Your task to perform on an android device: Open the web browser Image 0: 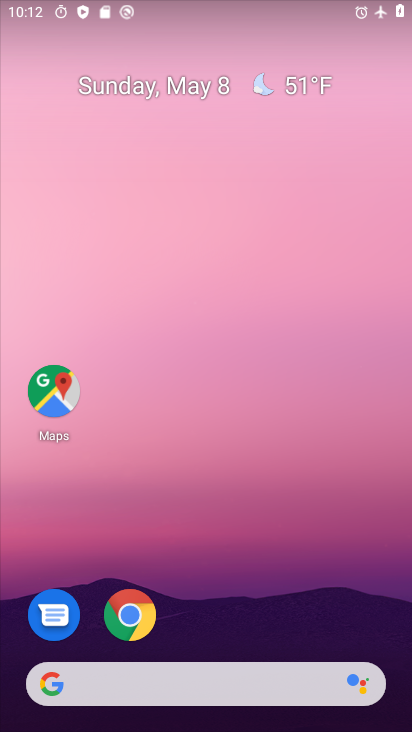
Step 0: drag from (220, 610) to (221, 78)
Your task to perform on an android device: Open the web browser Image 1: 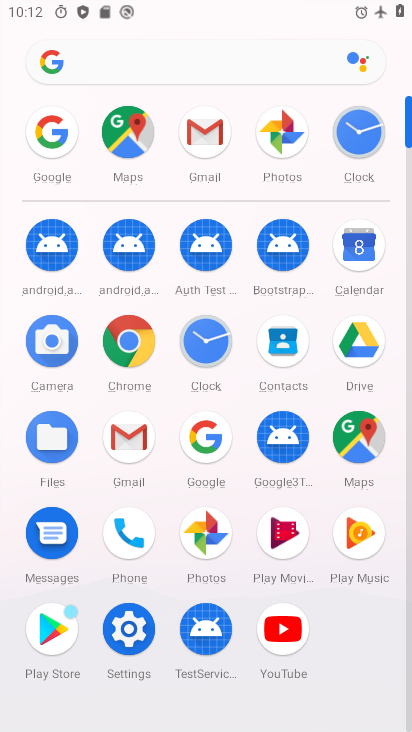
Step 1: click (70, 132)
Your task to perform on an android device: Open the web browser Image 2: 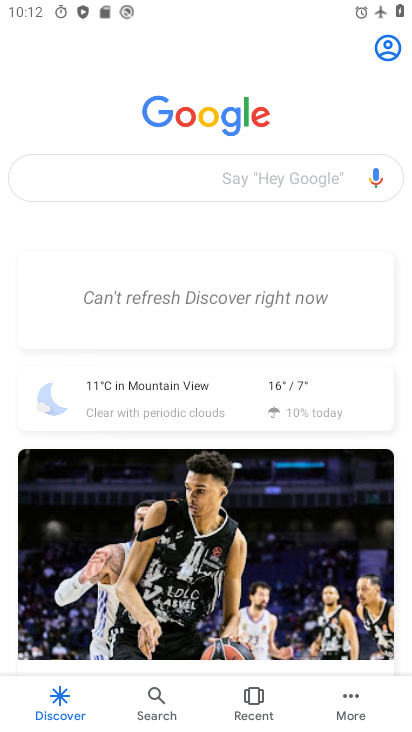
Step 2: task complete